Your task to perform on an android device: Search for Mexican restaurants on Maps Image 0: 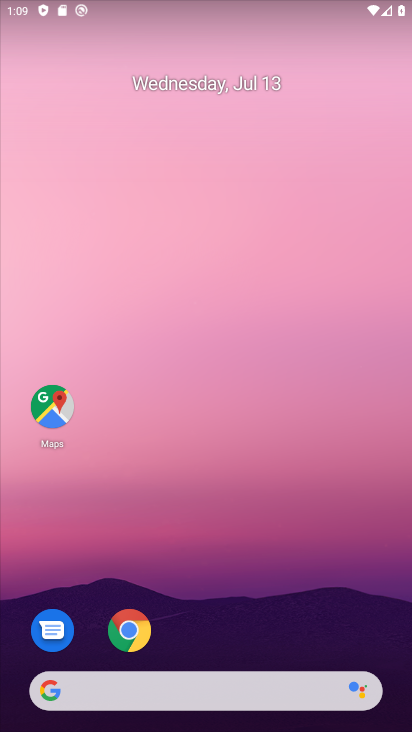
Step 0: drag from (325, 612) to (326, 110)
Your task to perform on an android device: Search for Mexican restaurants on Maps Image 1: 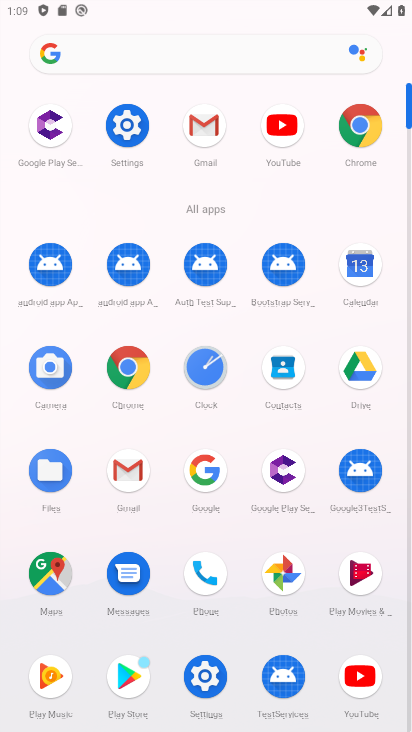
Step 1: click (38, 577)
Your task to perform on an android device: Search for Mexican restaurants on Maps Image 2: 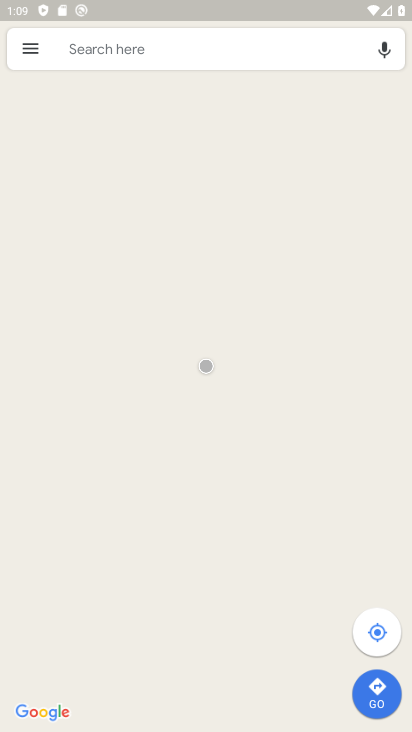
Step 2: click (213, 56)
Your task to perform on an android device: Search for Mexican restaurants on Maps Image 3: 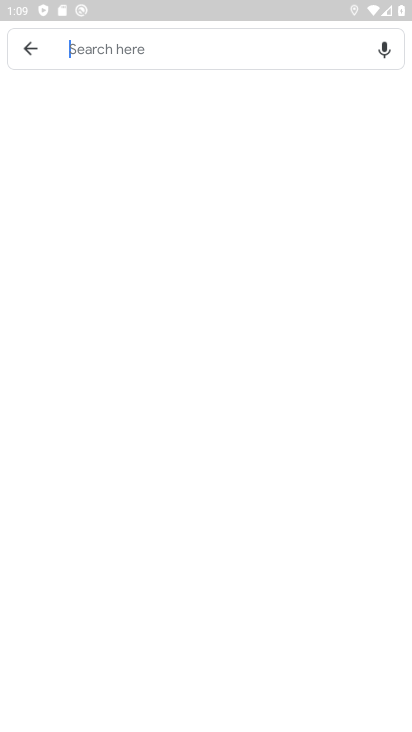
Step 3: click (214, 47)
Your task to perform on an android device: Search for Mexican restaurants on Maps Image 4: 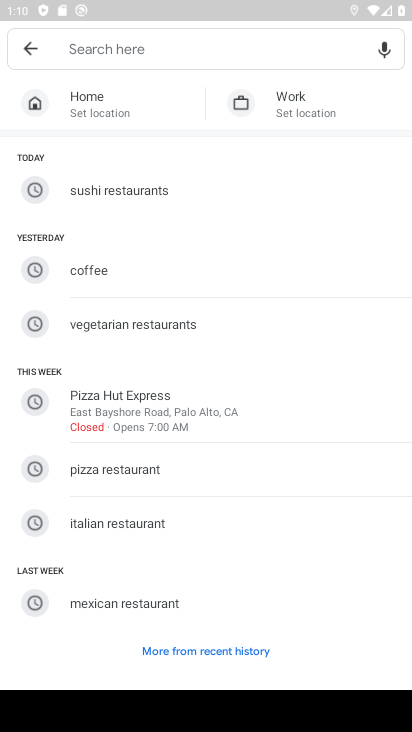
Step 4: type "mexcian restaurants"
Your task to perform on an android device: Search for Mexican restaurants on Maps Image 5: 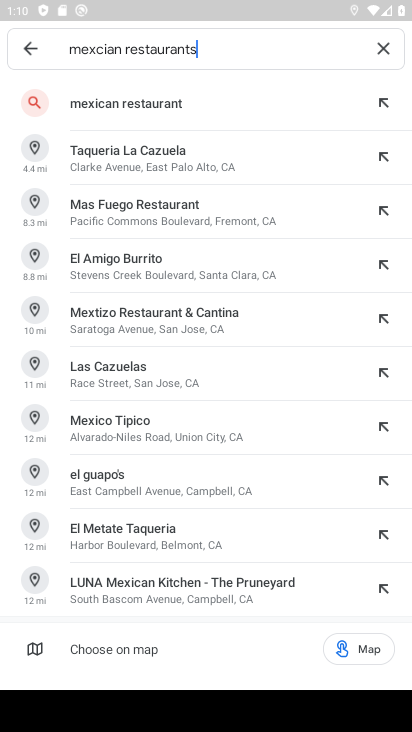
Step 5: click (150, 102)
Your task to perform on an android device: Search for Mexican restaurants on Maps Image 6: 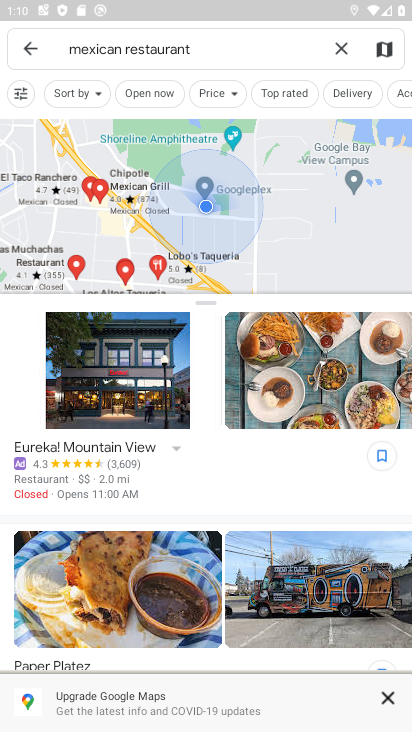
Step 6: task complete